Your task to perform on an android device: toggle data saver in the chrome app Image 0: 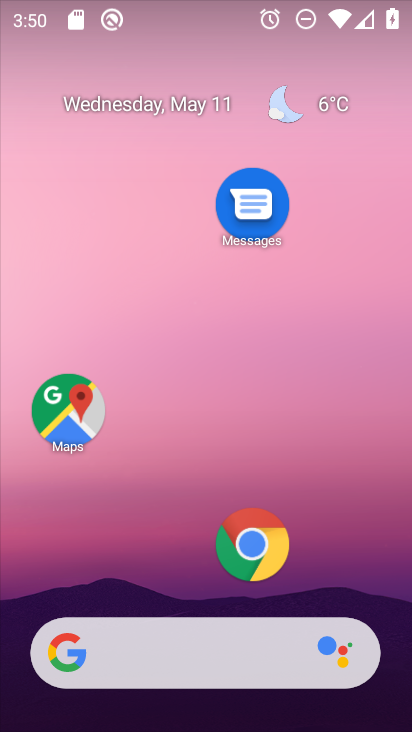
Step 0: click (251, 534)
Your task to perform on an android device: toggle data saver in the chrome app Image 1: 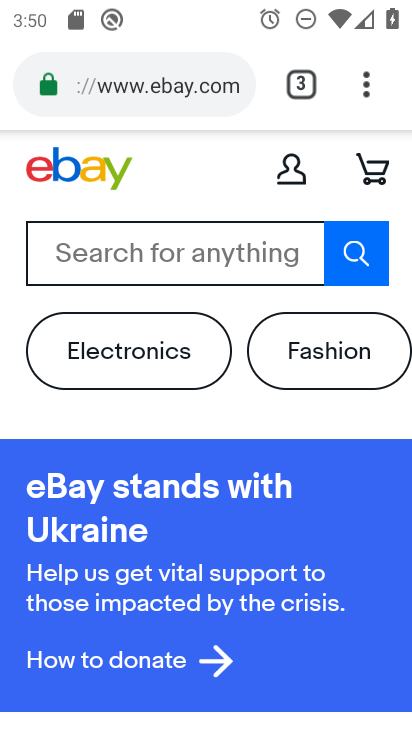
Step 1: drag from (360, 83) to (80, 596)
Your task to perform on an android device: toggle data saver in the chrome app Image 2: 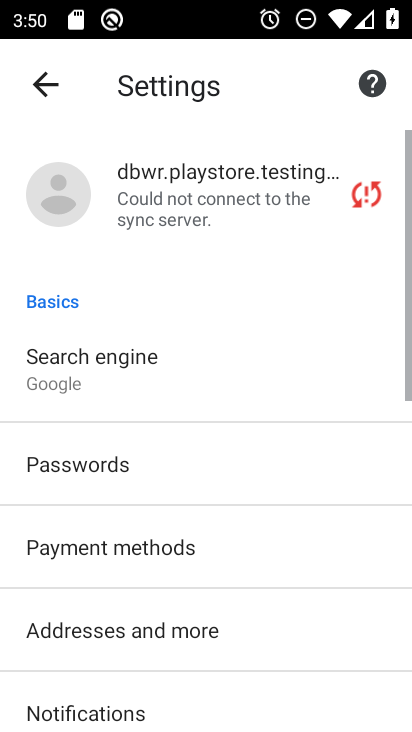
Step 2: drag from (203, 605) to (340, 83)
Your task to perform on an android device: toggle data saver in the chrome app Image 3: 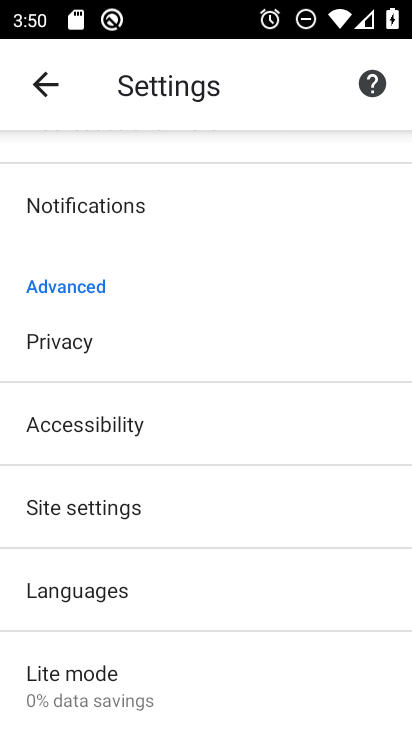
Step 3: click (44, 676)
Your task to perform on an android device: toggle data saver in the chrome app Image 4: 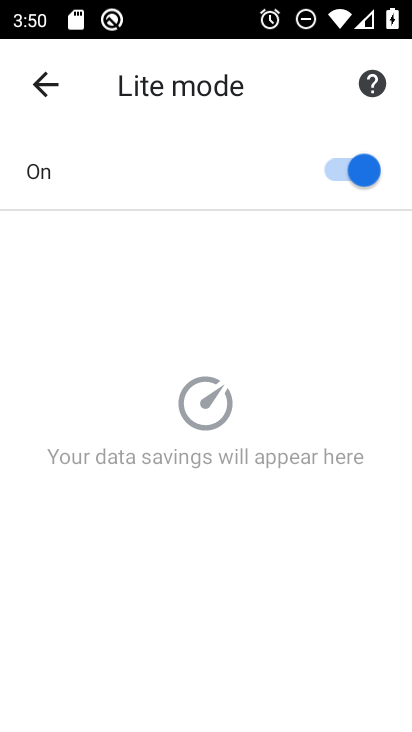
Step 4: click (339, 159)
Your task to perform on an android device: toggle data saver in the chrome app Image 5: 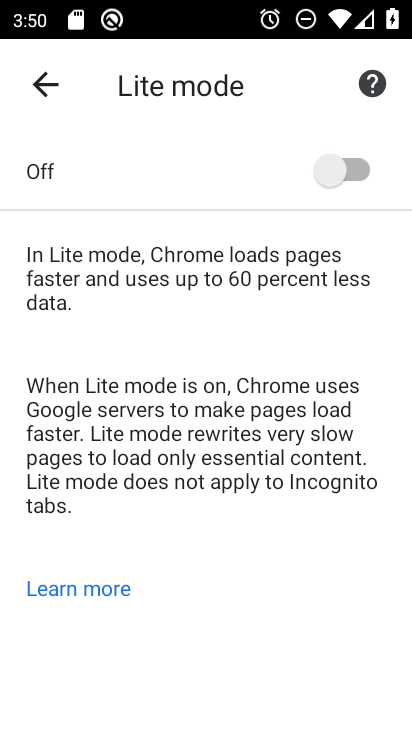
Step 5: task complete